Your task to perform on an android device: Open Android settings Image 0: 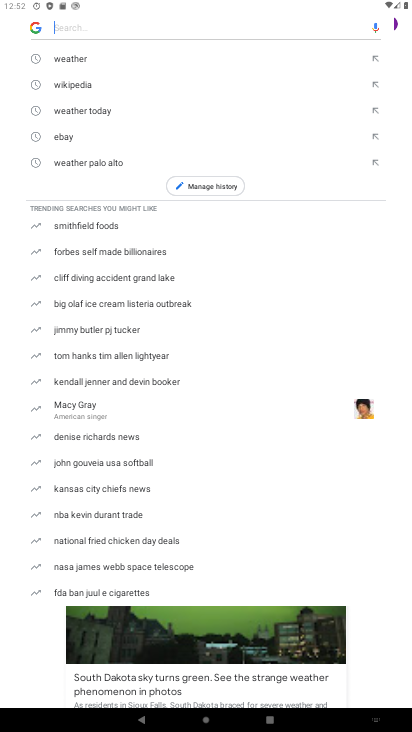
Step 0: press home button
Your task to perform on an android device: Open Android settings Image 1: 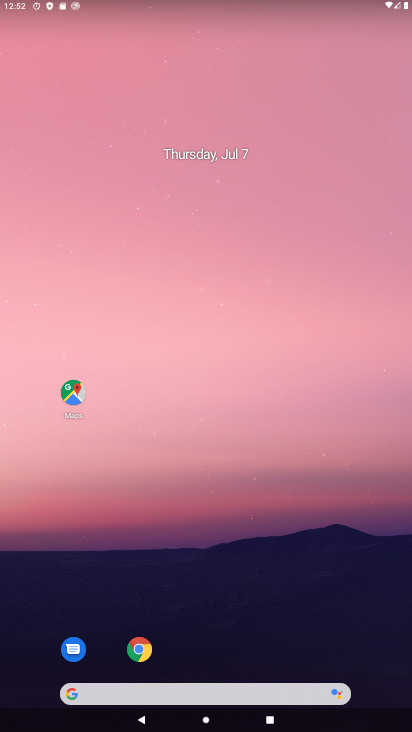
Step 1: drag from (216, 674) to (219, 118)
Your task to perform on an android device: Open Android settings Image 2: 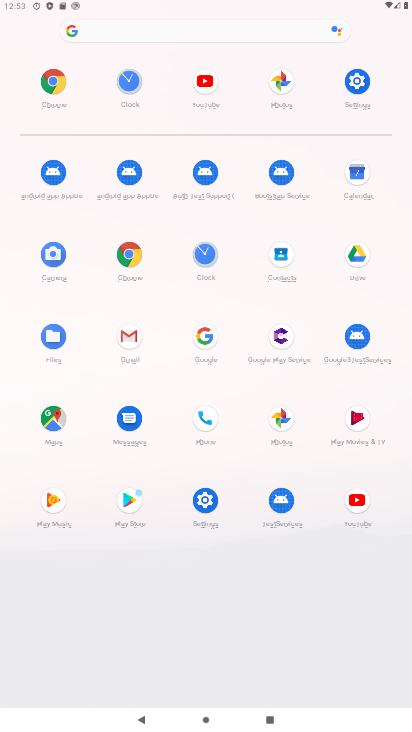
Step 2: click (359, 97)
Your task to perform on an android device: Open Android settings Image 3: 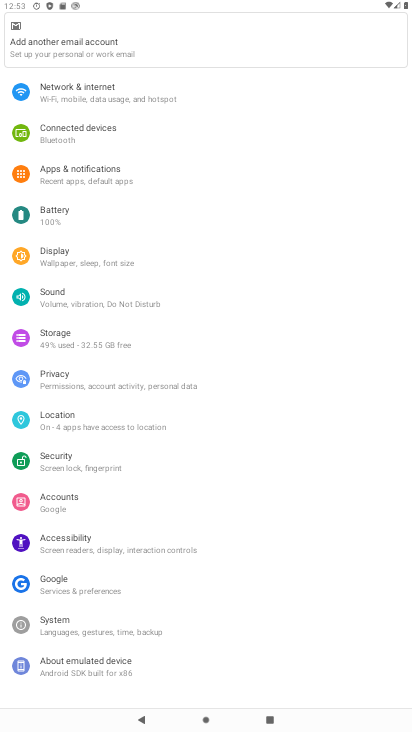
Step 3: drag from (281, 348) to (258, 12)
Your task to perform on an android device: Open Android settings Image 4: 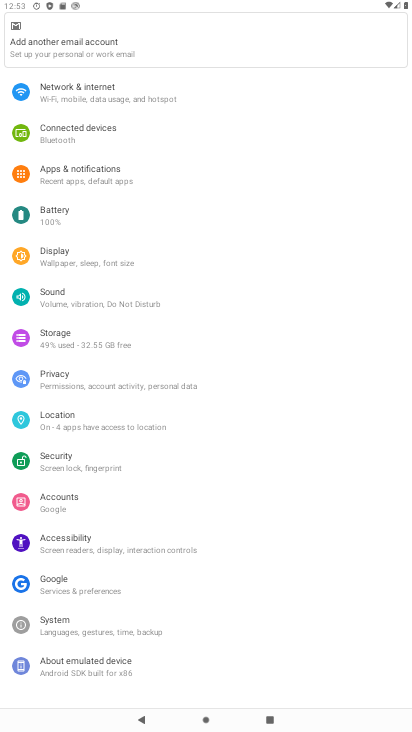
Step 4: click (70, 665)
Your task to perform on an android device: Open Android settings Image 5: 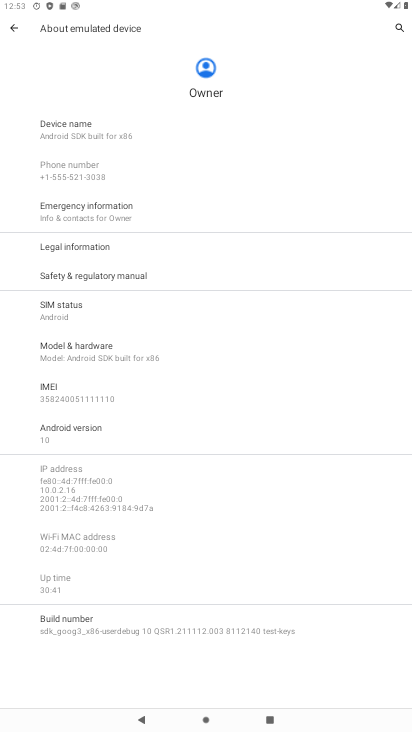
Step 5: task complete